Your task to perform on an android device: Go to accessibility settings Image 0: 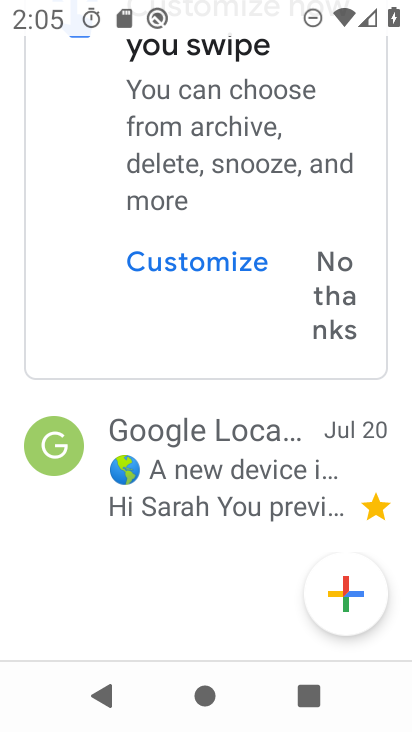
Step 0: press home button
Your task to perform on an android device: Go to accessibility settings Image 1: 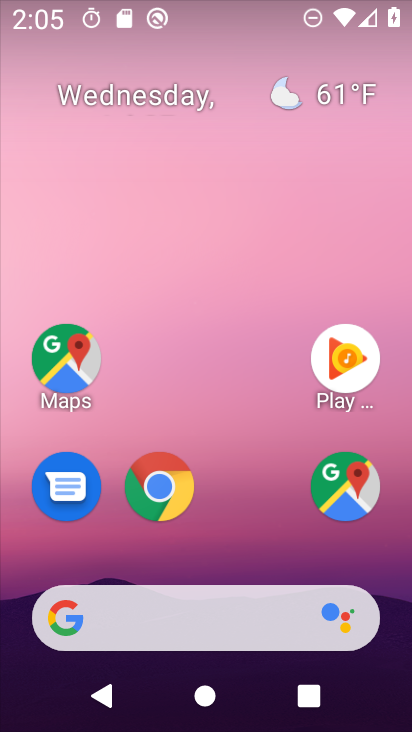
Step 1: drag from (238, 540) to (265, 103)
Your task to perform on an android device: Go to accessibility settings Image 2: 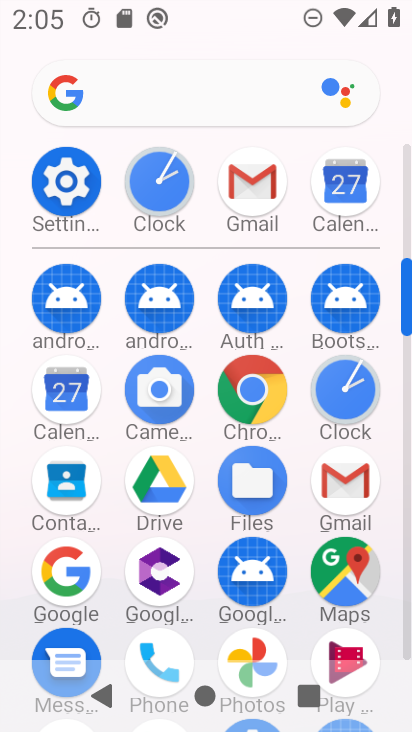
Step 2: click (72, 186)
Your task to perform on an android device: Go to accessibility settings Image 3: 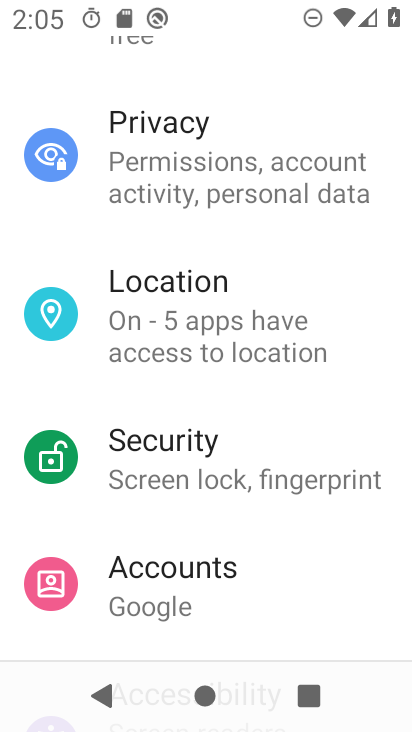
Step 3: drag from (363, 250) to (372, 350)
Your task to perform on an android device: Go to accessibility settings Image 4: 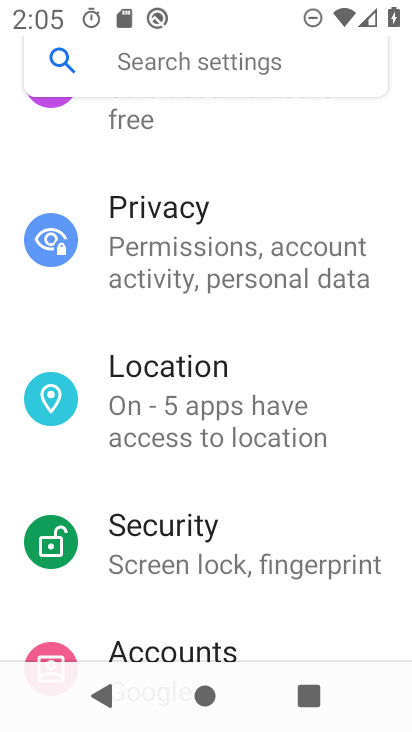
Step 4: drag from (392, 198) to (384, 362)
Your task to perform on an android device: Go to accessibility settings Image 5: 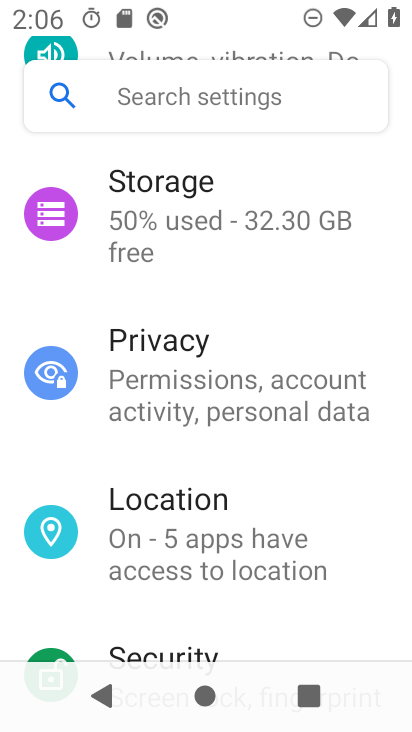
Step 5: drag from (374, 215) to (373, 340)
Your task to perform on an android device: Go to accessibility settings Image 6: 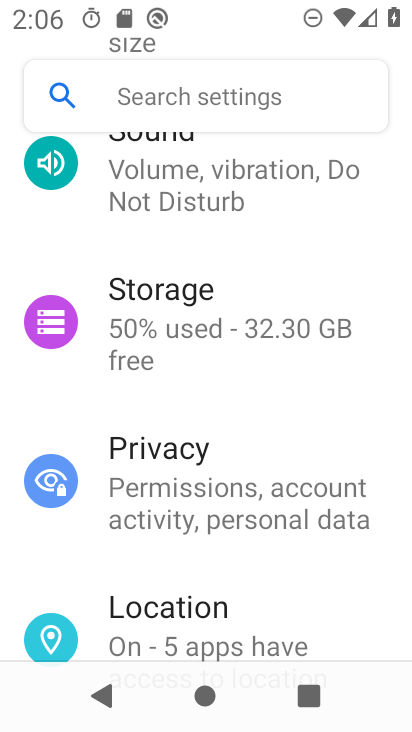
Step 6: drag from (375, 197) to (376, 382)
Your task to perform on an android device: Go to accessibility settings Image 7: 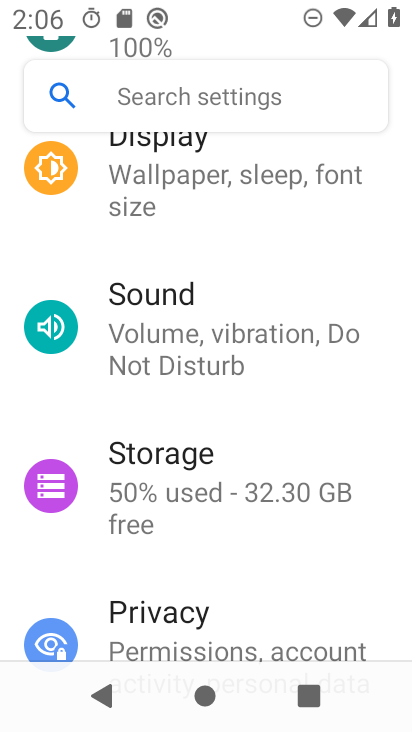
Step 7: drag from (377, 243) to (376, 420)
Your task to perform on an android device: Go to accessibility settings Image 8: 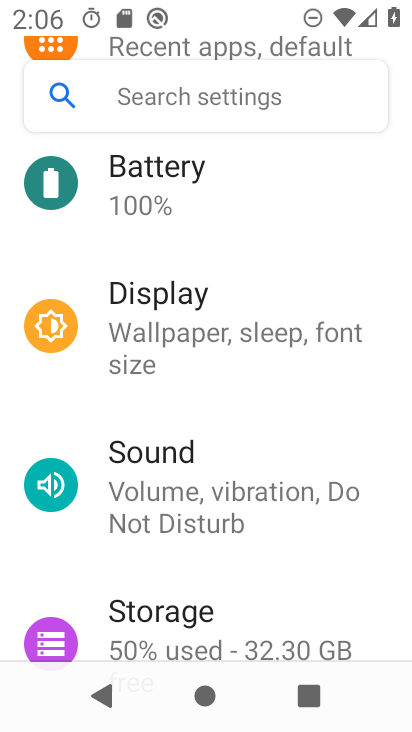
Step 8: drag from (377, 237) to (376, 411)
Your task to perform on an android device: Go to accessibility settings Image 9: 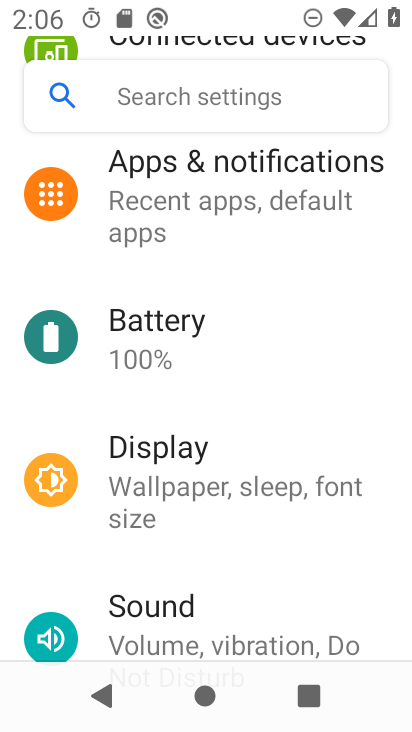
Step 9: drag from (374, 236) to (367, 437)
Your task to perform on an android device: Go to accessibility settings Image 10: 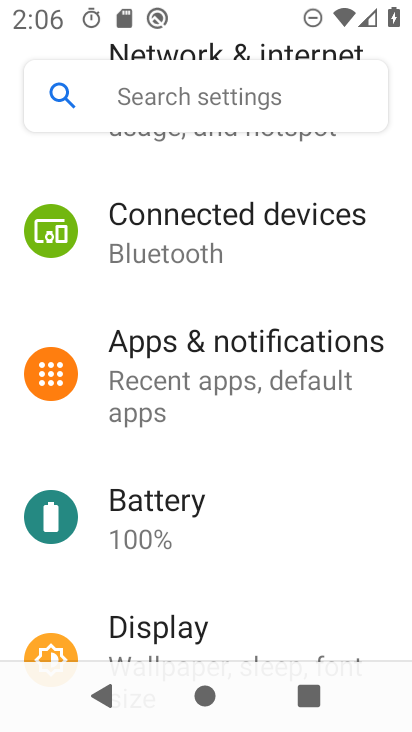
Step 10: drag from (368, 261) to (376, 457)
Your task to perform on an android device: Go to accessibility settings Image 11: 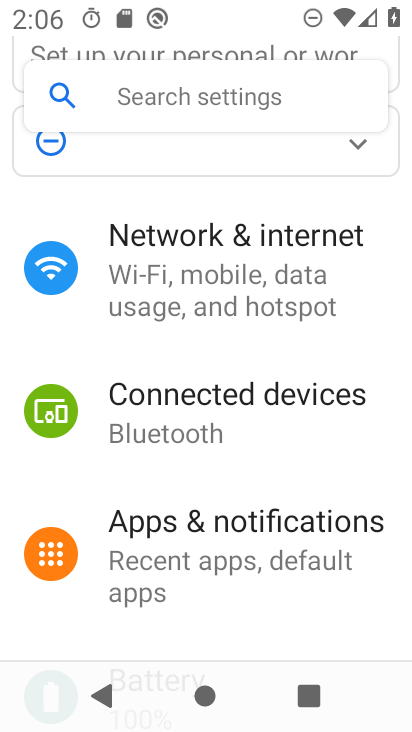
Step 11: drag from (355, 657) to (375, 530)
Your task to perform on an android device: Go to accessibility settings Image 12: 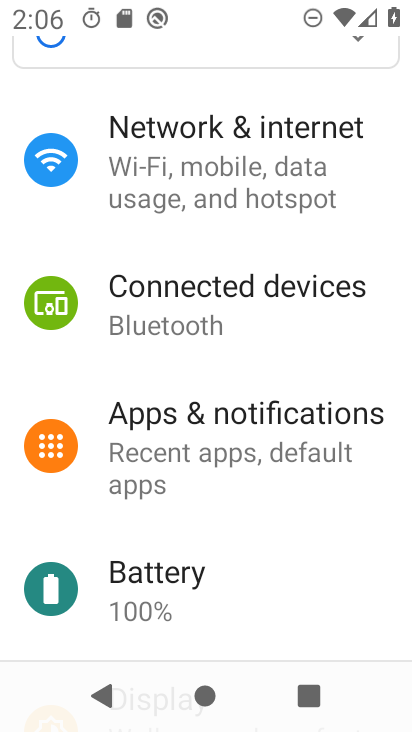
Step 12: drag from (345, 588) to (354, 473)
Your task to perform on an android device: Go to accessibility settings Image 13: 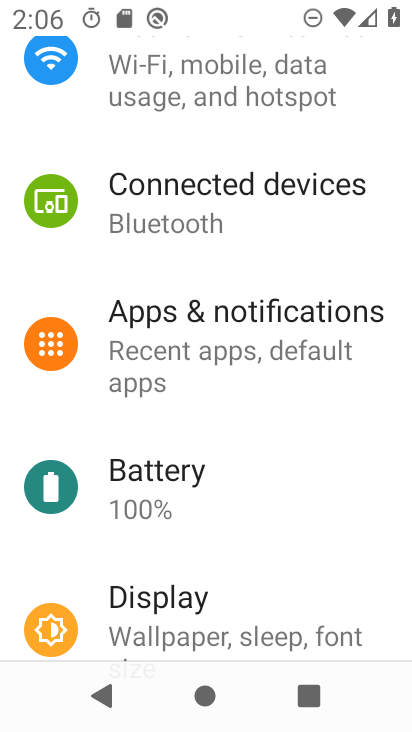
Step 13: drag from (344, 519) to (343, 426)
Your task to perform on an android device: Go to accessibility settings Image 14: 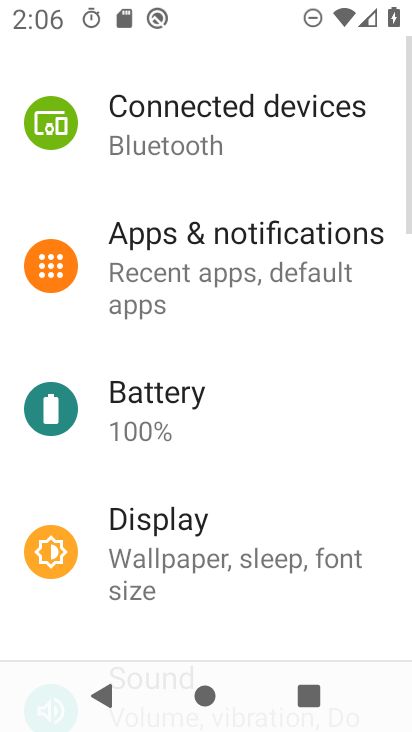
Step 14: drag from (334, 482) to (338, 396)
Your task to perform on an android device: Go to accessibility settings Image 15: 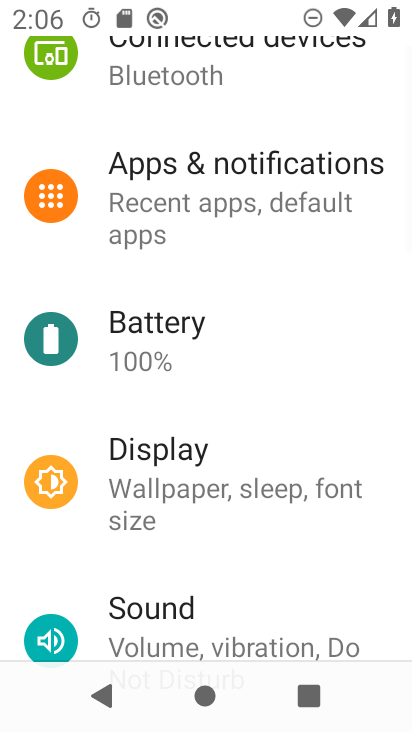
Step 15: drag from (331, 546) to (333, 466)
Your task to perform on an android device: Go to accessibility settings Image 16: 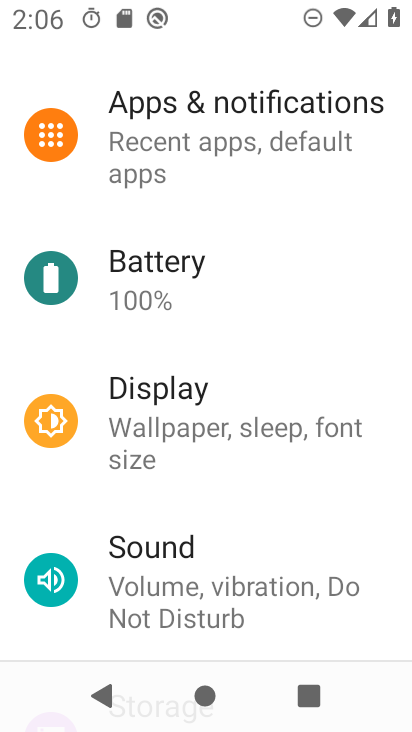
Step 16: drag from (340, 599) to (345, 507)
Your task to perform on an android device: Go to accessibility settings Image 17: 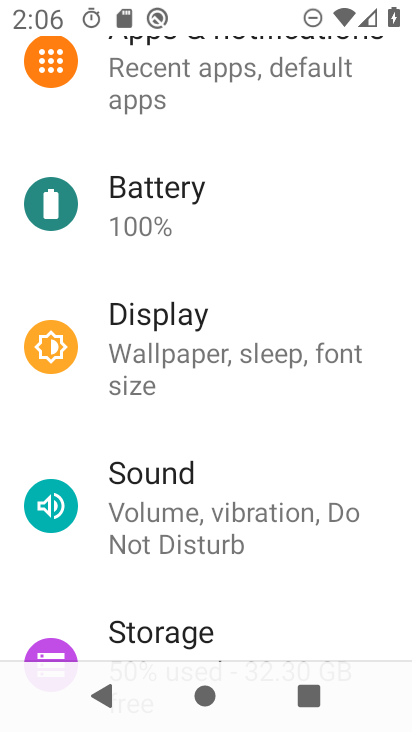
Step 17: drag from (351, 602) to (353, 513)
Your task to perform on an android device: Go to accessibility settings Image 18: 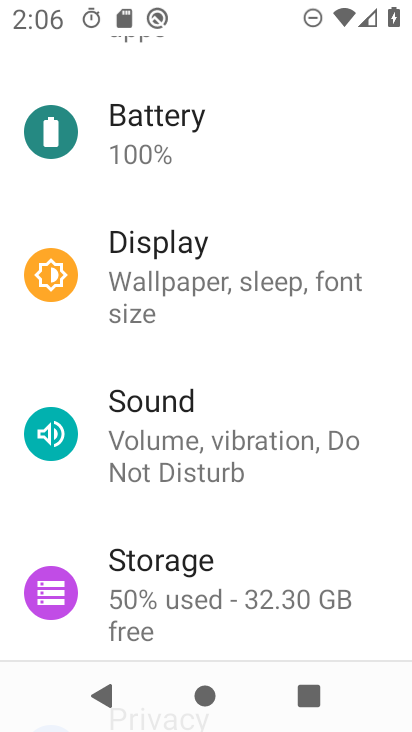
Step 18: drag from (365, 628) to (373, 544)
Your task to perform on an android device: Go to accessibility settings Image 19: 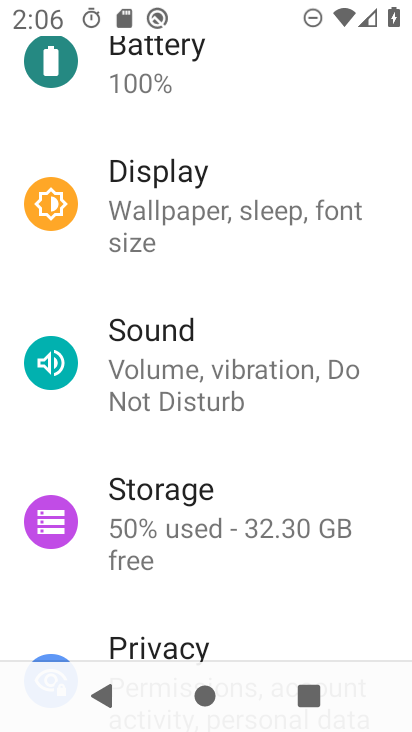
Step 19: drag from (372, 602) to (372, 500)
Your task to perform on an android device: Go to accessibility settings Image 20: 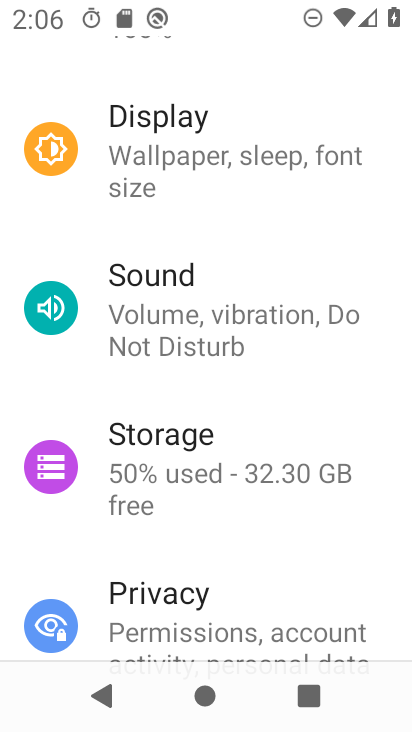
Step 20: drag from (369, 578) to (369, 493)
Your task to perform on an android device: Go to accessibility settings Image 21: 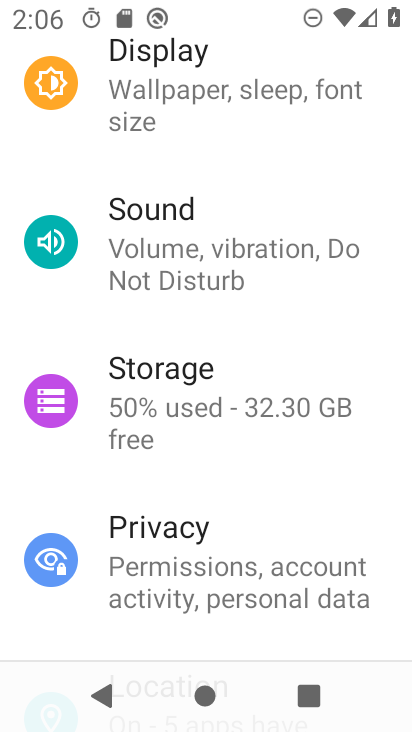
Step 21: drag from (346, 629) to (346, 511)
Your task to perform on an android device: Go to accessibility settings Image 22: 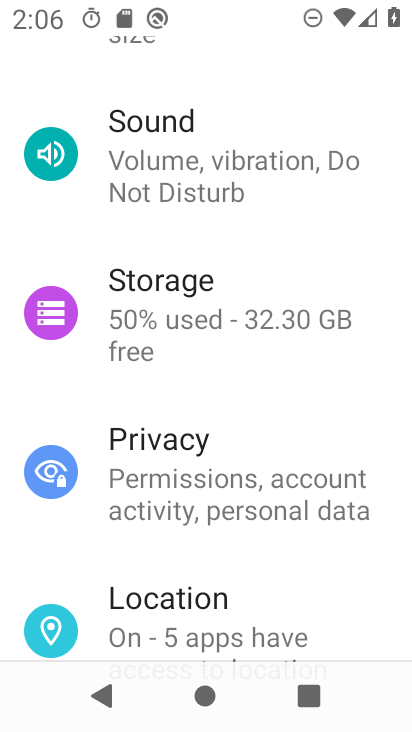
Step 22: drag from (345, 611) to (347, 512)
Your task to perform on an android device: Go to accessibility settings Image 23: 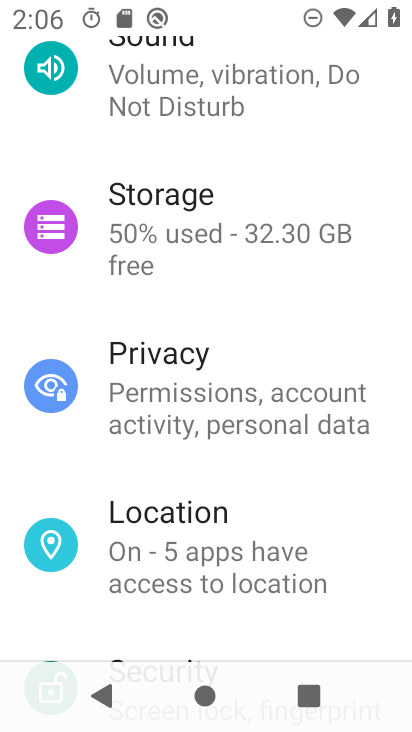
Step 23: drag from (343, 563) to (343, 457)
Your task to perform on an android device: Go to accessibility settings Image 24: 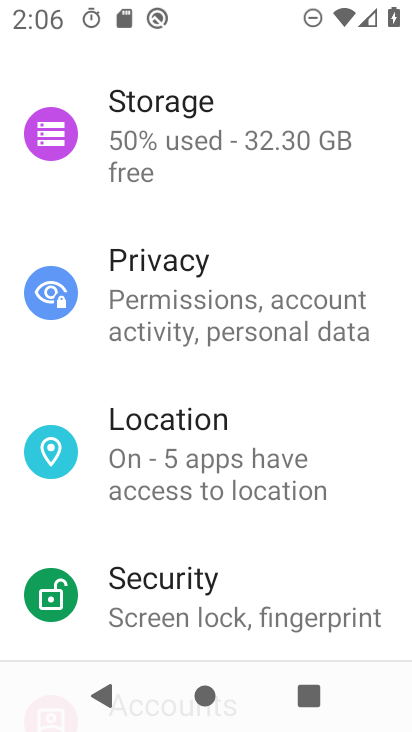
Step 24: drag from (337, 554) to (336, 436)
Your task to perform on an android device: Go to accessibility settings Image 25: 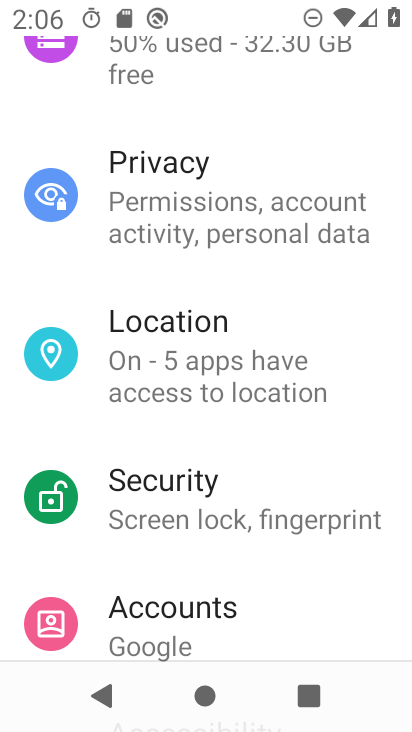
Step 25: drag from (337, 601) to (332, 484)
Your task to perform on an android device: Go to accessibility settings Image 26: 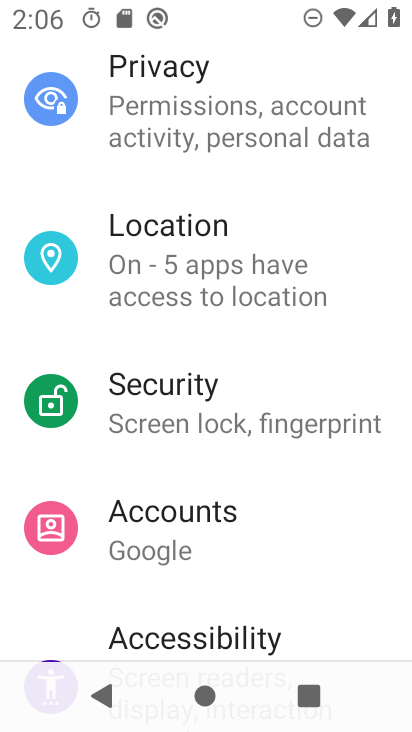
Step 26: drag from (313, 596) to (316, 452)
Your task to perform on an android device: Go to accessibility settings Image 27: 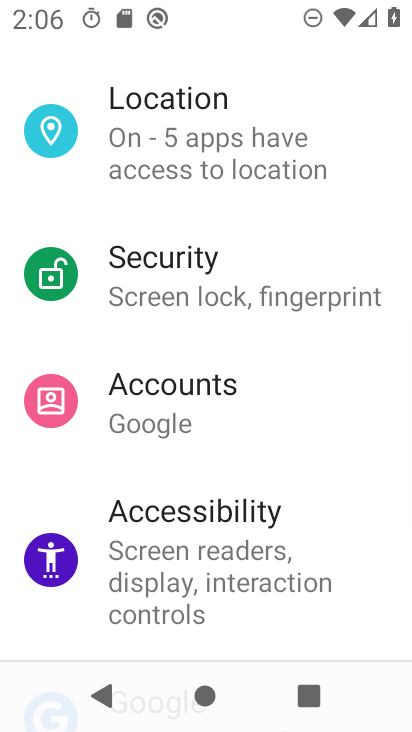
Step 27: click (296, 526)
Your task to perform on an android device: Go to accessibility settings Image 28: 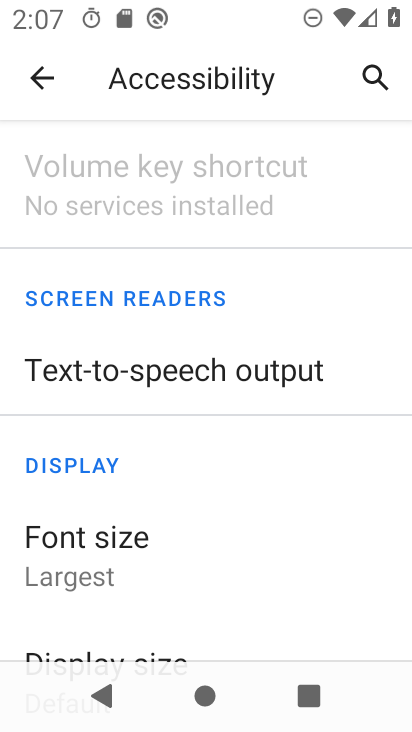
Step 28: task complete